Your task to perform on an android device: open chrome and create a bookmark for the current page Image 0: 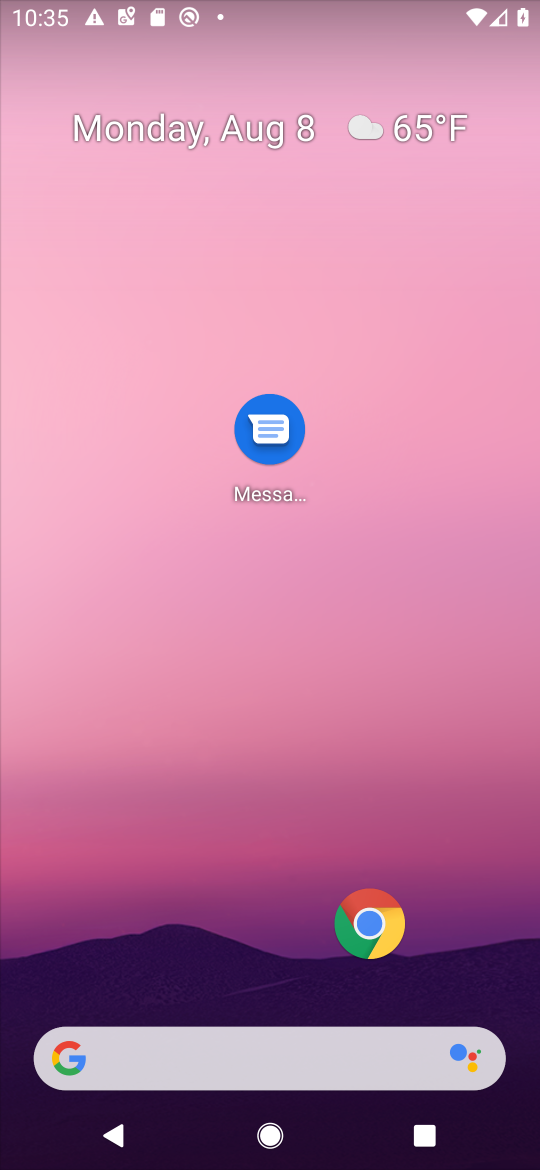
Step 0: click (385, 930)
Your task to perform on an android device: open chrome and create a bookmark for the current page Image 1: 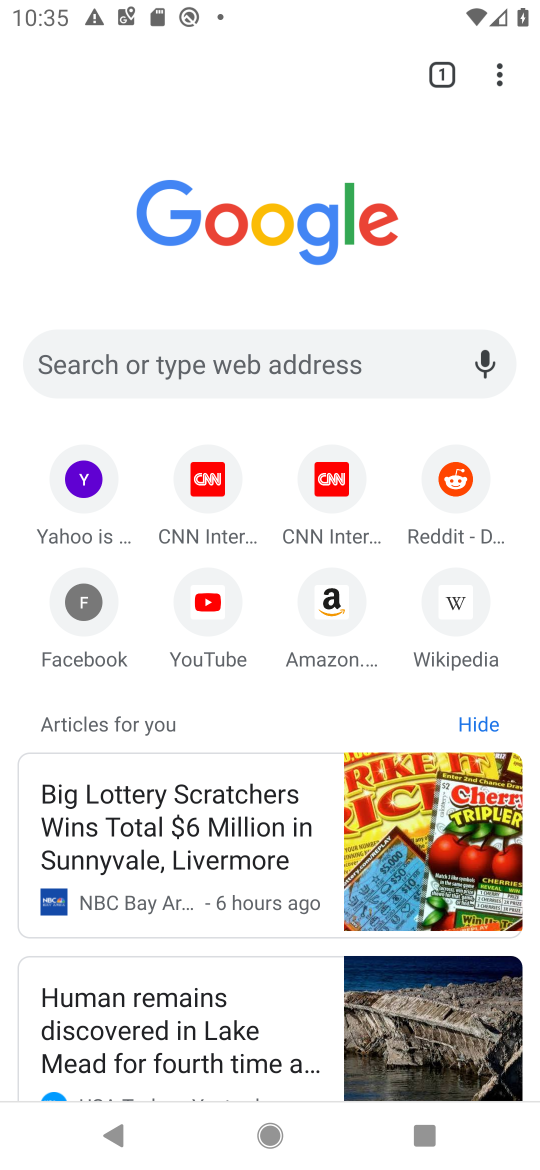
Step 1: click (503, 70)
Your task to perform on an android device: open chrome and create a bookmark for the current page Image 2: 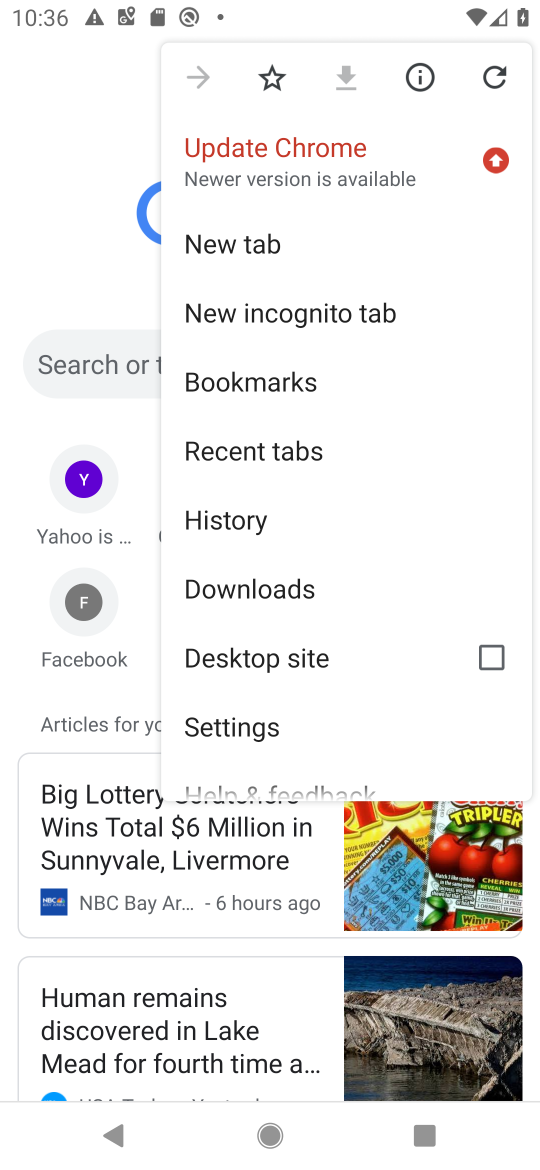
Step 2: click (272, 74)
Your task to perform on an android device: open chrome and create a bookmark for the current page Image 3: 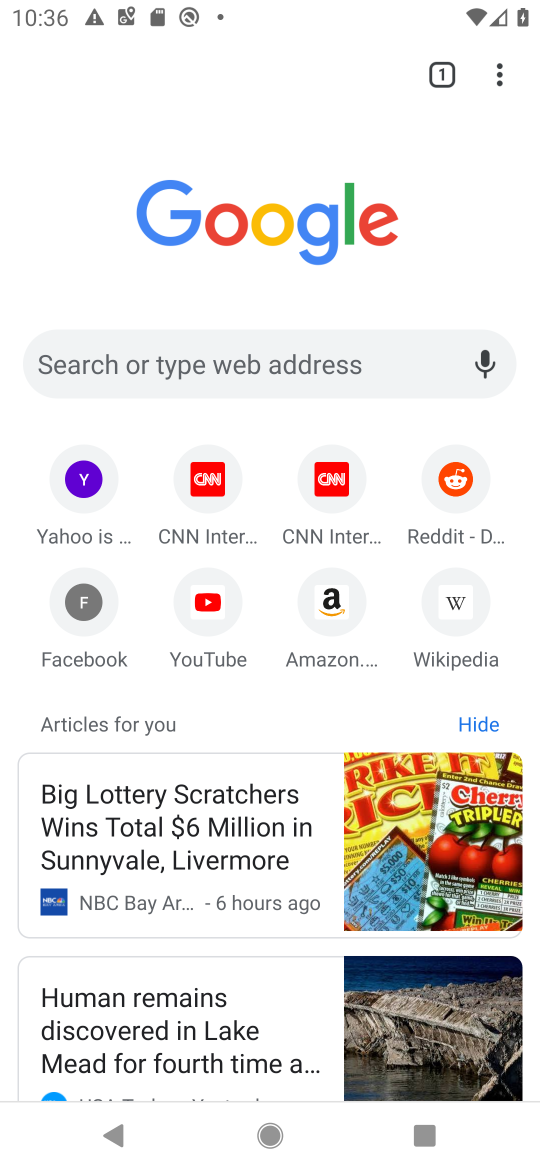
Step 3: task complete